Your task to perform on an android device: check out phone information Image 0: 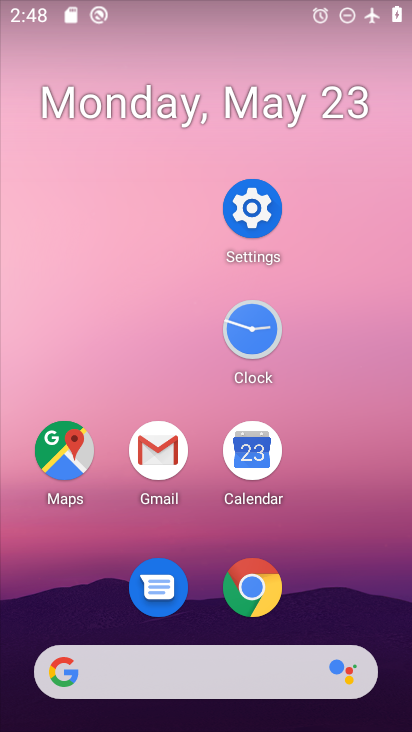
Step 0: click (272, 245)
Your task to perform on an android device: check out phone information Image 1: 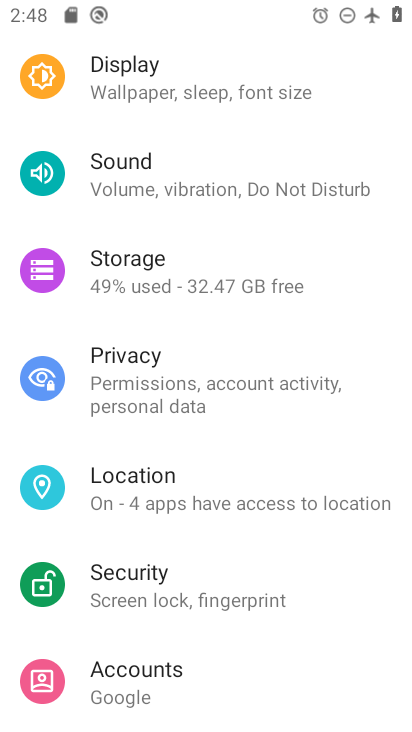
Step 1: task complete